Your task to perform on an android device: find snoozed emails in the gmail app Image 0: 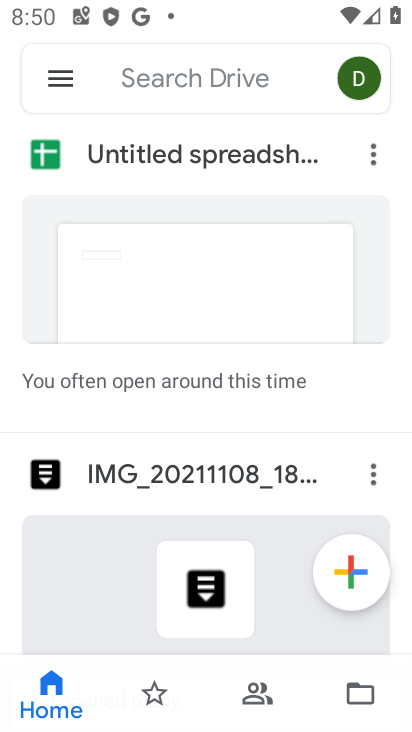
Step 0: press home button
Your task to perform on an android device: find snoozed emails in the gmail app Image 1: 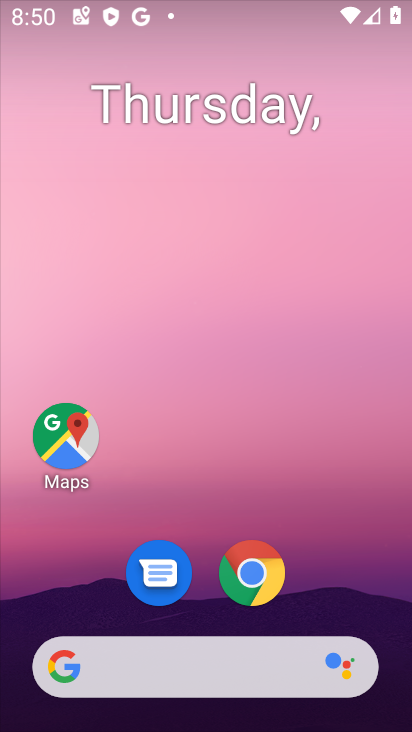
Step 1: drag from (368, 600) to (300, 139)
Your task to perform on an android device: find snoozed emails in the gmail app Image 2: 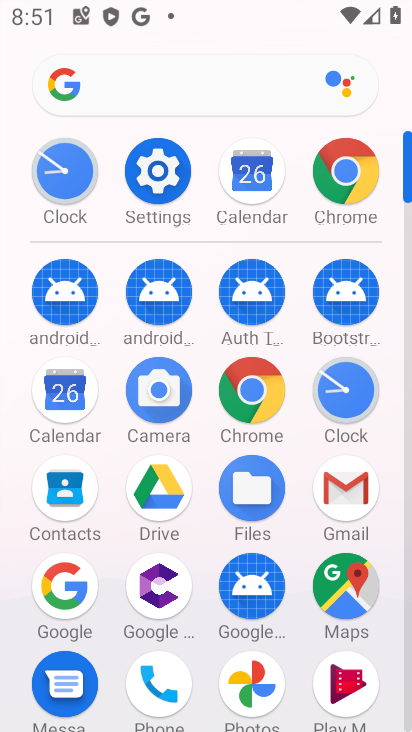
Step 2: click (353, 501)
Your task to perform on an android device: find snoozed emails in the gmail app Image 3: 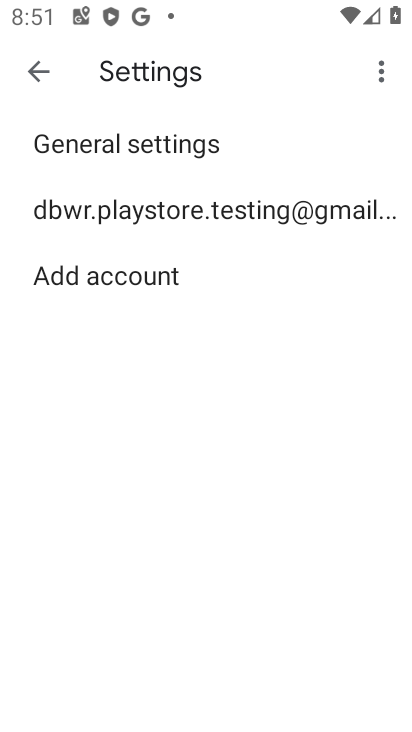
Step 3: click (281, 198)
Your task to perform on an android device: find snoozed emails in the gmail app Image 4: 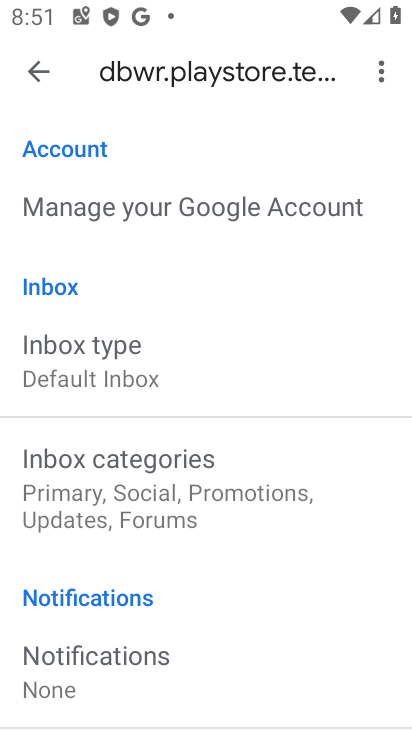
Step 4: click (39, 88)
Your task to perform on an android device: find snoozed emails in the gmail app Image 5: 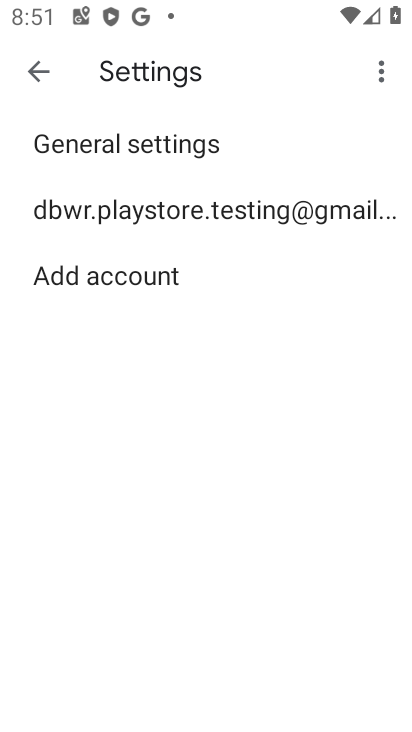
Step 5: click (40, 87)
Your task to perform on an android device: find snoozed emails in the gmail app Image 6: 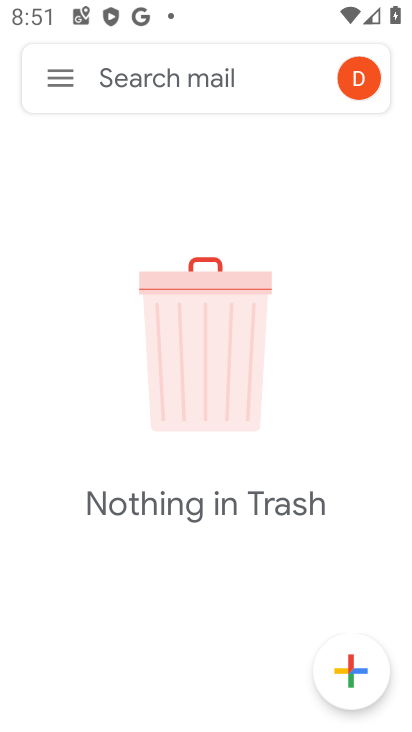
Step 6: click (53, 92)
Your task to perform on an android device: find snoozed emails in the gmail app Image 7: 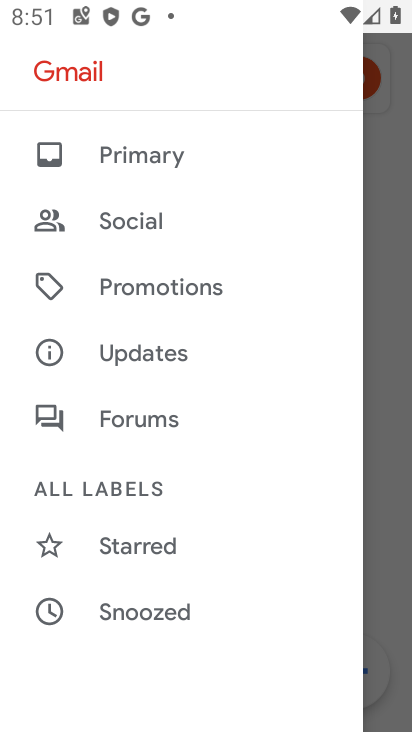
Step 7: click (171, 611)
Your task to perform on an android device: find snoozed emails in the gmail app Image 8: 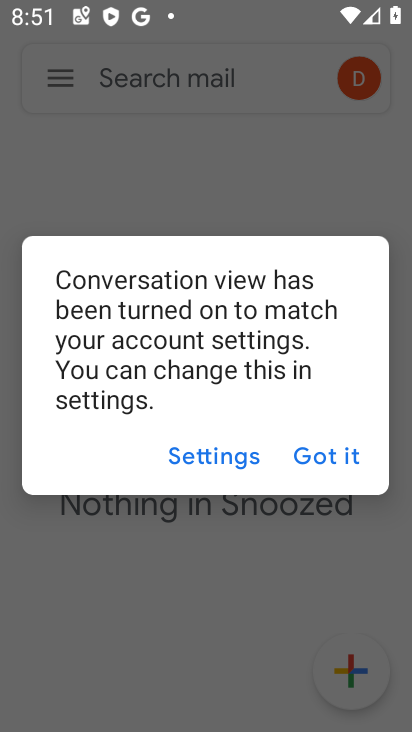
Step 8: click (313, 452)
Your task to perform on an android device: find snoozed emails in the gmail app Image 9: 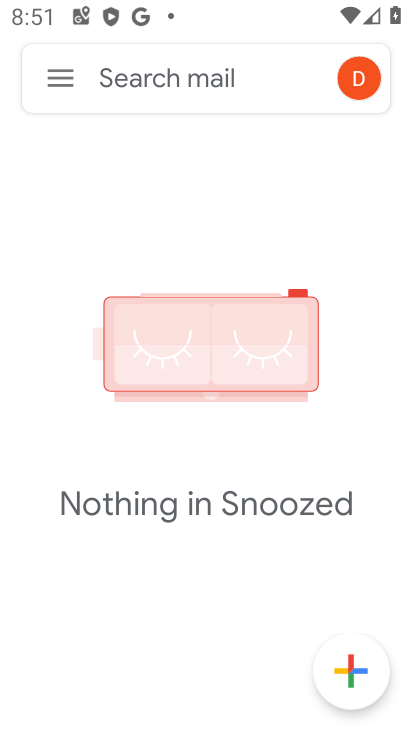
Step 9: task complete